Your task to perform on an android device: check storage Image 0: 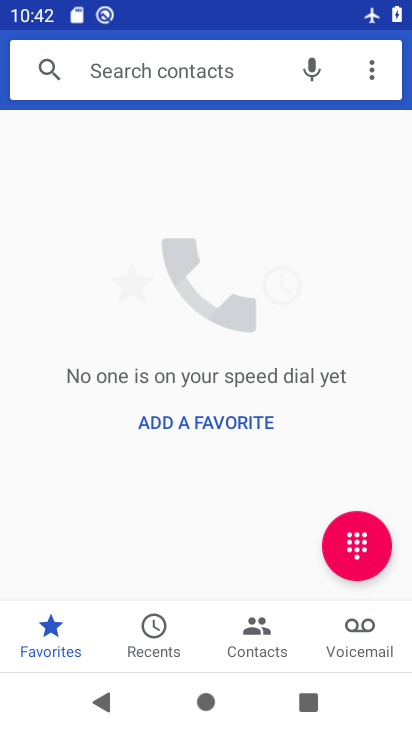
Step 0: press home button
Your task to perform on an android device: check storage Image 1: 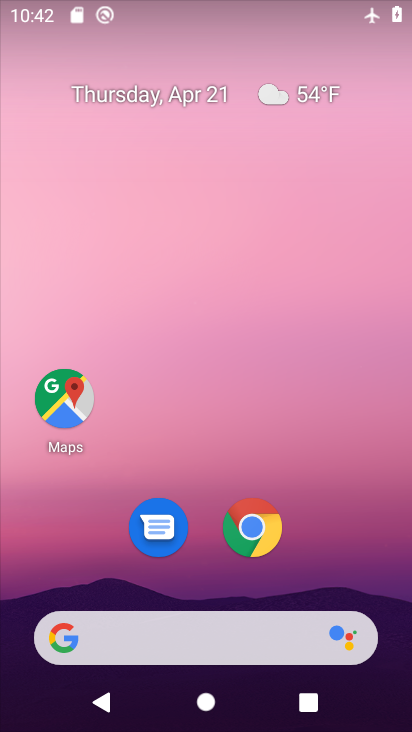
Step 1: drag from (326, 551) to (325, 141)
Your task to perform on an android device: check storage Image 2: 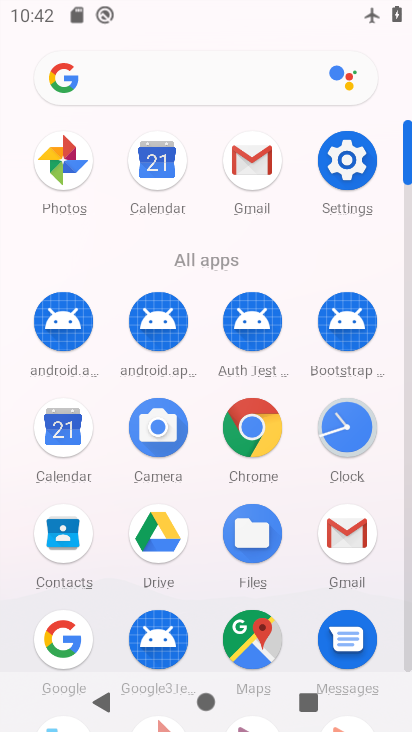
Step 2: click (345, 169)
Your task to perform on an android device: check storage Image 3: 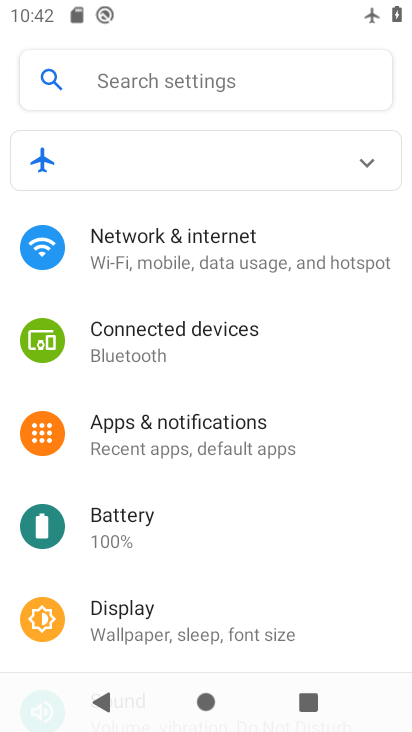
Step 3: drag from (212, 593) to (242, 305)
Your task to perform on an android device: check storage Image 4: 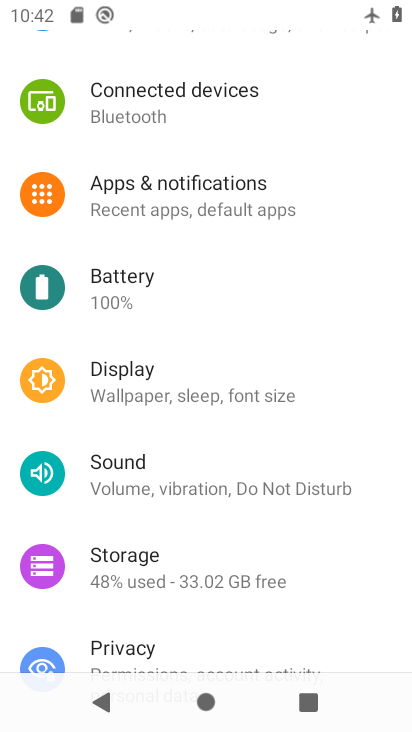
Step 4: click (193, 587)
Your task to perform on an android device: check storage Image 5: 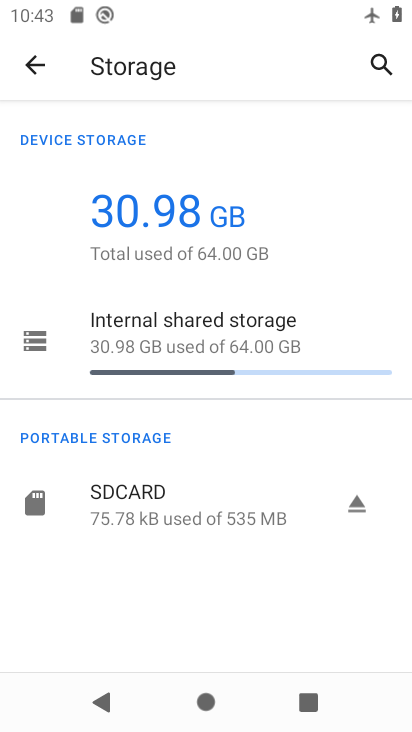
Step 5: task complete